Your task to perform on an android device: What is the news today? Image 0: 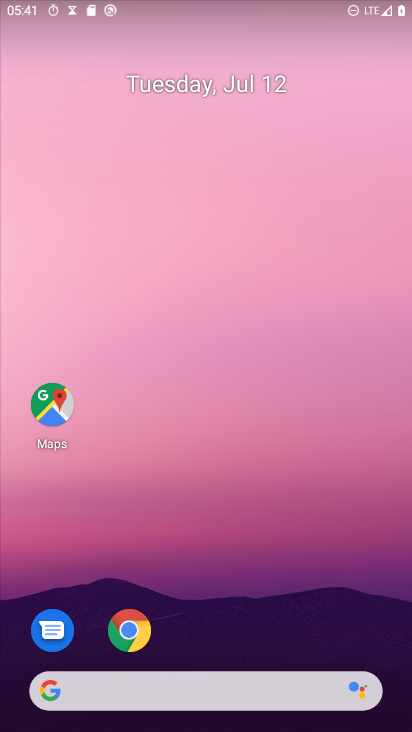
Step 0: drag from (272, 573) to (302, 86)
Your task to perform on an android device: What is the news today? Image 1: 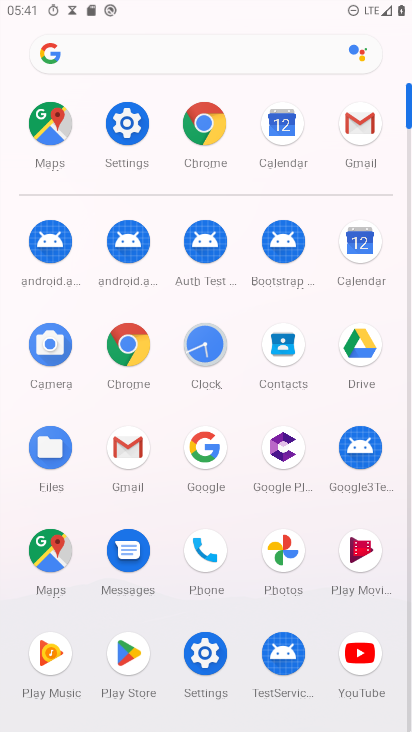
Step 1: click (132, 350)
Your task to perform on an android device: What is the news today? Image 2: 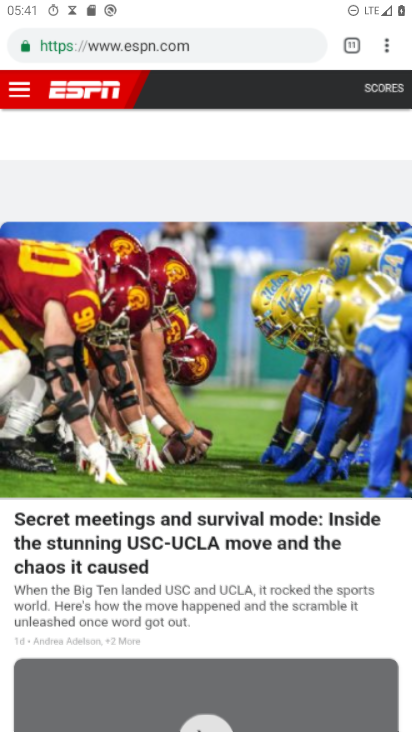
Step 2: click (206, 39)
Your task to perform on an android device: What is the news today? Image 3: 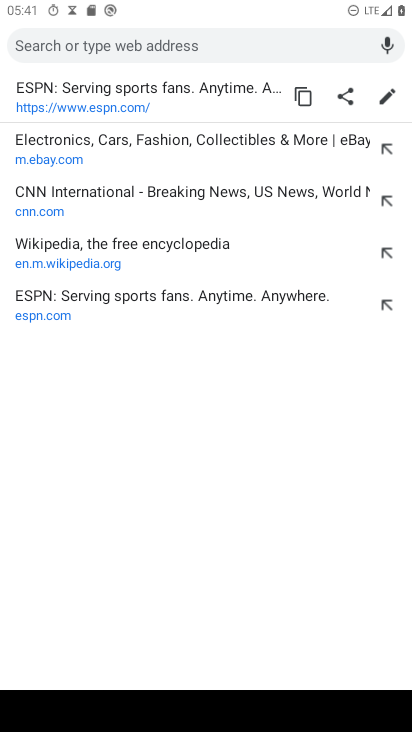
Step 3: type "news today"
Your task to perform on an android device: What is the news today? Image 4: 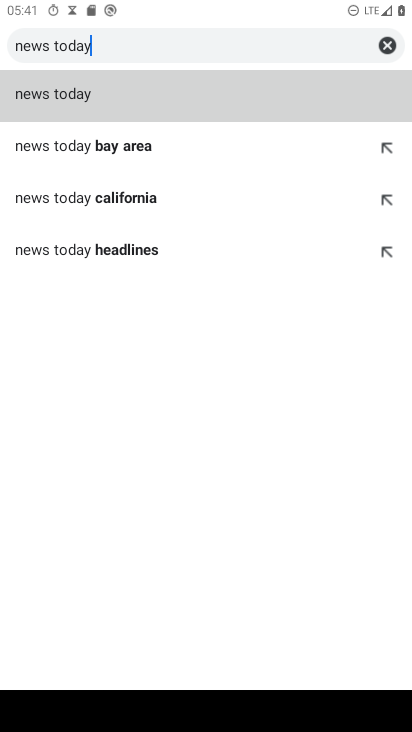
Step 4: click (85, 102)
Your task to perform on an android device: What is the news today? Image 5: 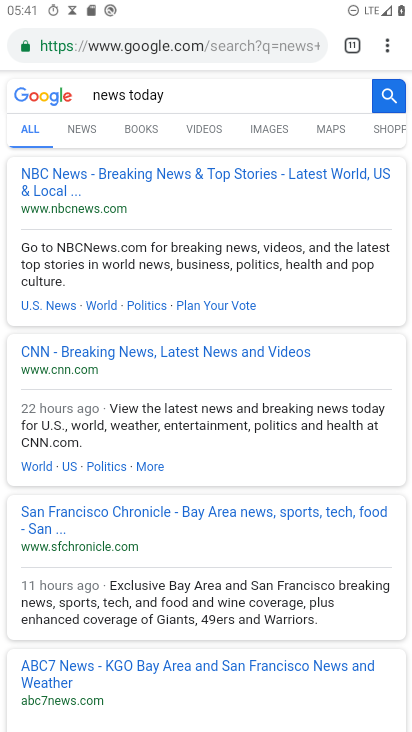
Step 5: task complete